Your task to perform on an android device: Open accessibility settings Image 0: 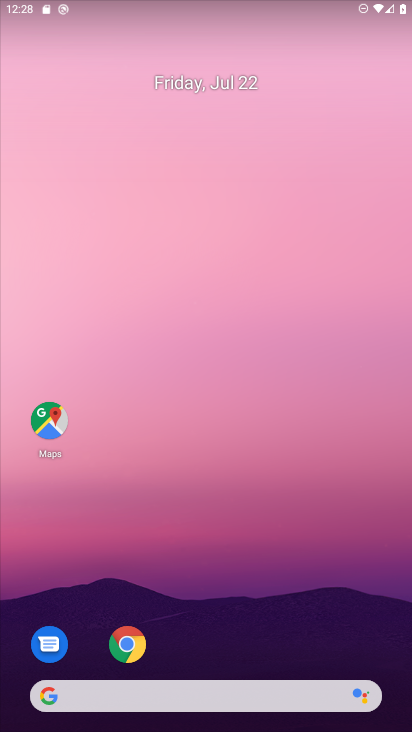
Step 0: drag from (223, 625) to (220, 319)
Your task to perform on an android device: Open accessibility settings Image 1: 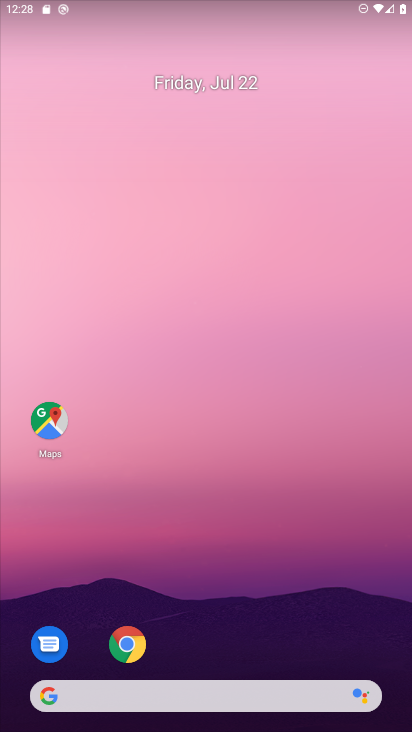
Step 1: drag from (209, 657) to (233, 238)
Your task to perform on an android device: Open accessibility settings Image 2: 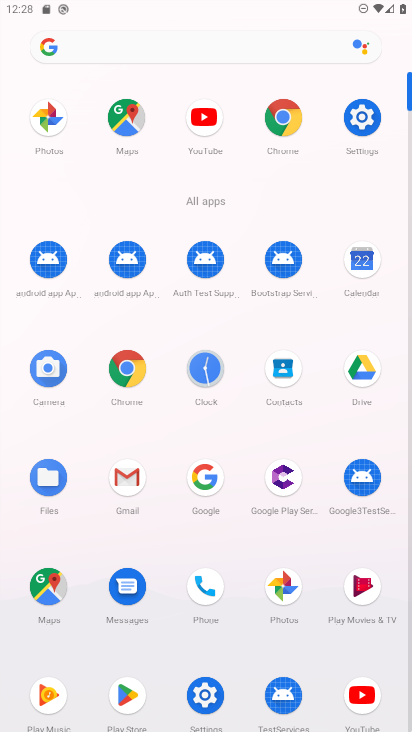
Step 2: click (350, 112)
Your task to perform on an android device: Open accessibility settings Image 3: 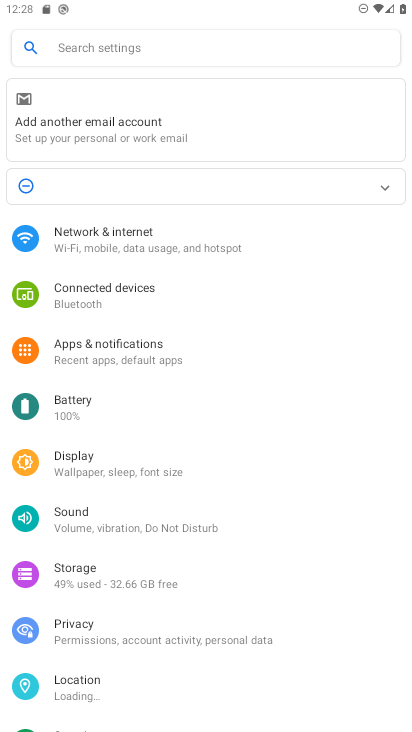
Step 3: drag from (81, 628) to (106, 130)
Your task to perform on an android device: Open accessibility settings Image 4: 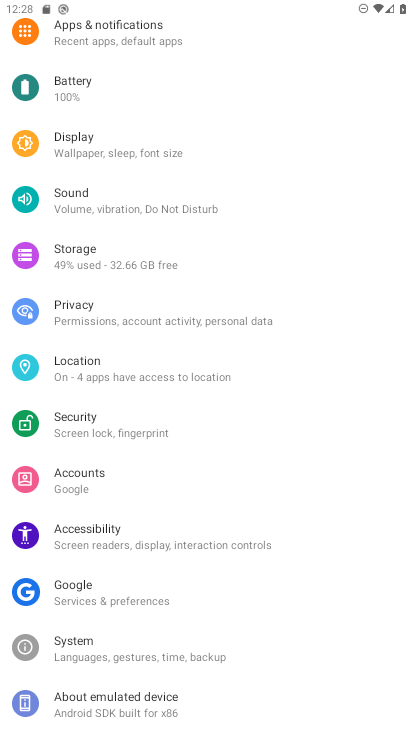
Step 4: click (148, 547)
Your task to perform on an android device: Open accessibility settings Image 5: 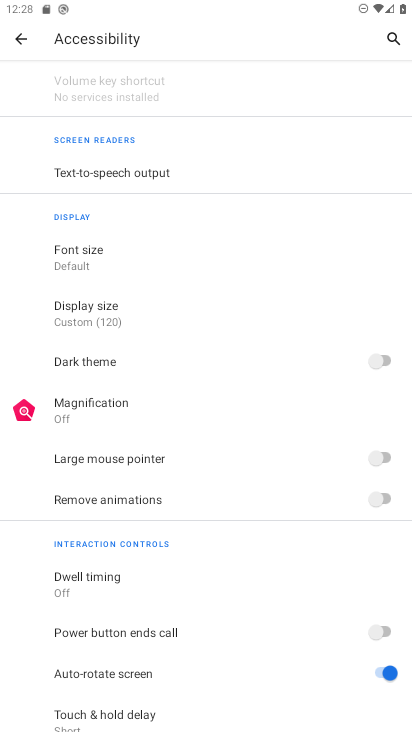
Step 5: task complete